Your task to perform on an android device: Is it going to rain today? Image 0: 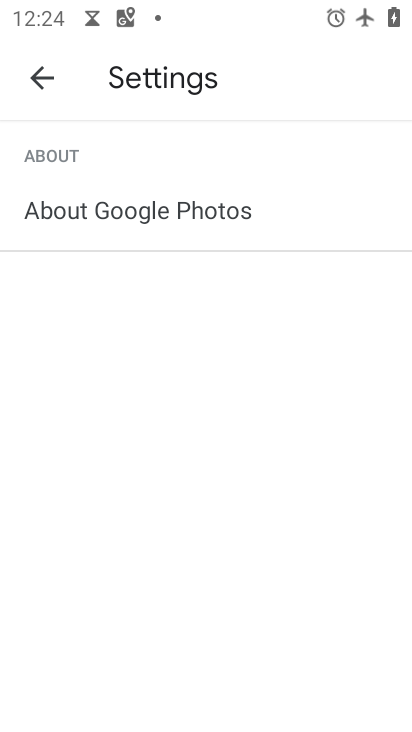
Step 0: press home button
Your task to perform on an android device: Is it going to rain today? Image 1: 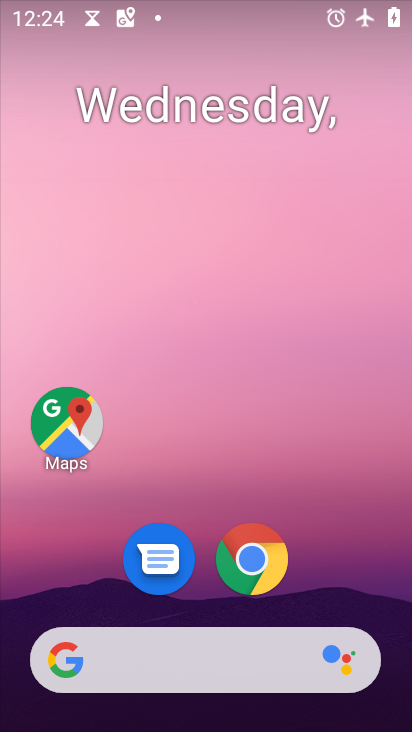
Step 1: click (52, 663)
Your task to perform on an android device: Is it going to rain today? Image 2: 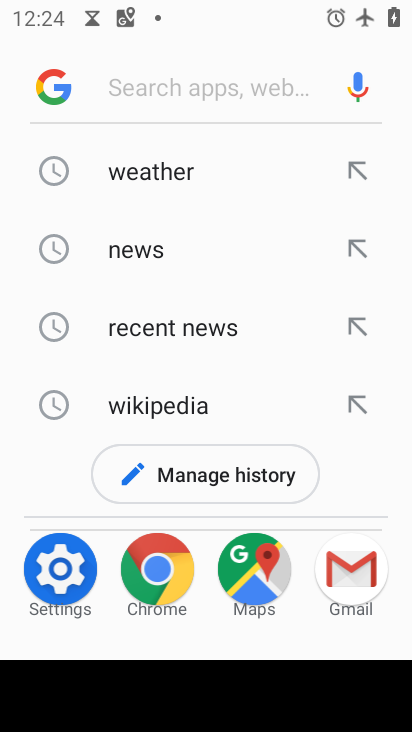
Step 2: click (62, 85)
Your task to perform on an android device: Is it going to rain today? Image 3: 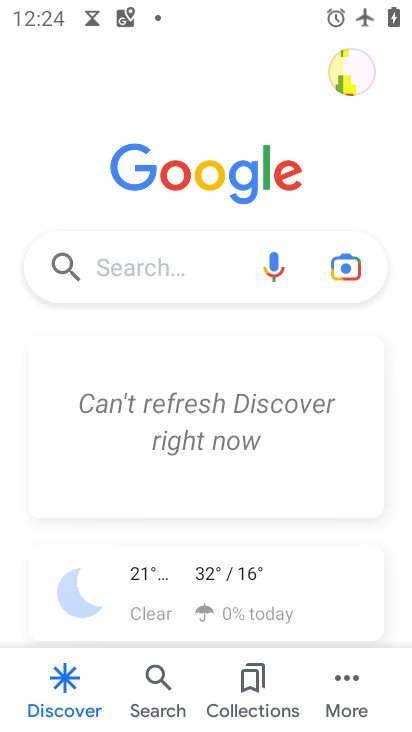
Step 3: drag from (280, 583) to (254, 253)
Your task to perform on an android device: Is it going to rain today? Image 4: 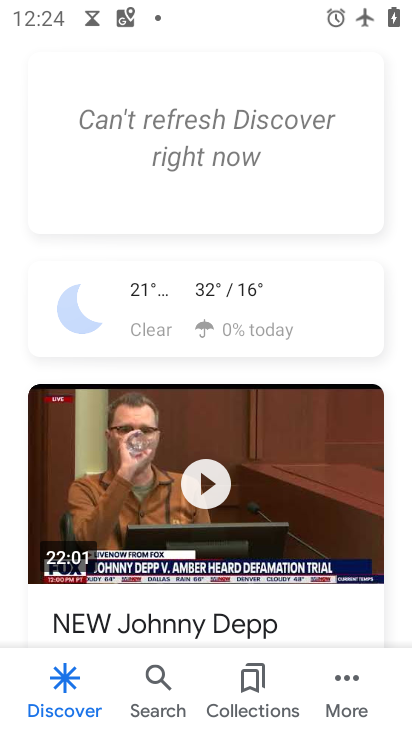
Step 4: click (221, 294)
Your task to perform on an android device: Is it going to rain today? Image 5: 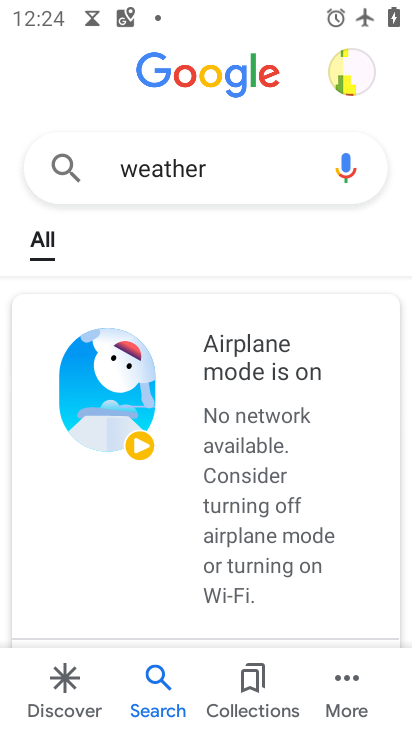
Step 5: task complete